Your task to perform on an android device: toggle wifi Image 0: 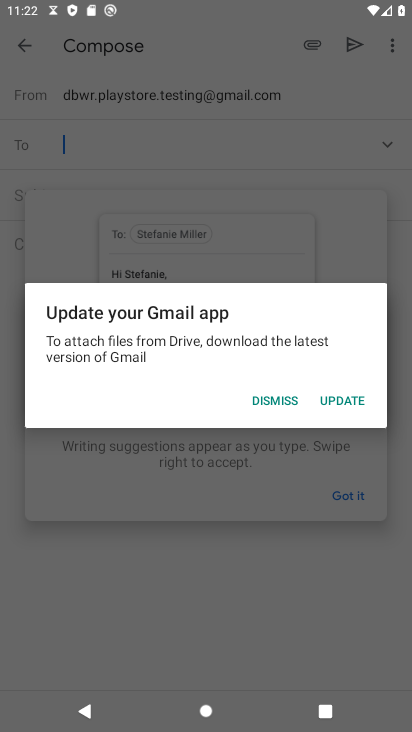
Step 0: click (180, 340)
Your task to perform on an android device: toggle wifi Image 1: 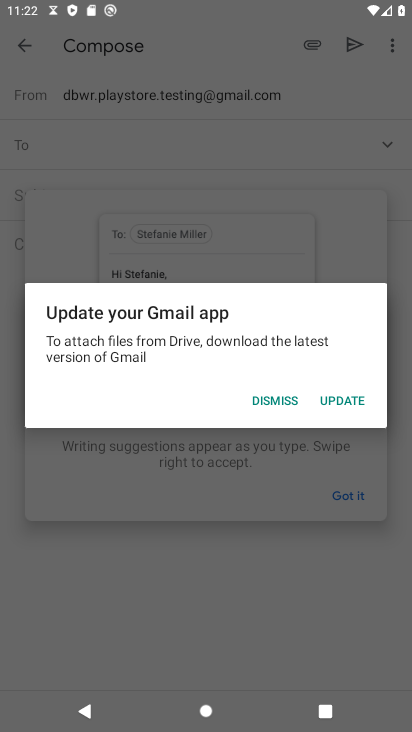
Step 1: press home button
Your task to perform on an android device: toggle wifi Image 2: 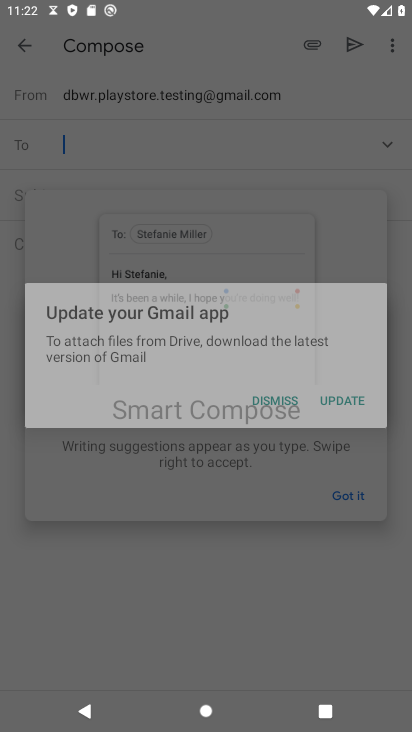
Step 2: press home button
Your task to perform on an android device: toggle wifi Image 3: 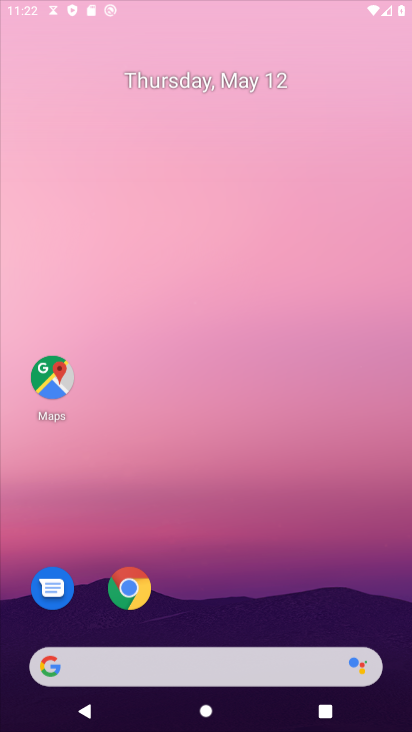
Step 3: press home button
Your task to perform on an android device: toggle wifi Image 4: 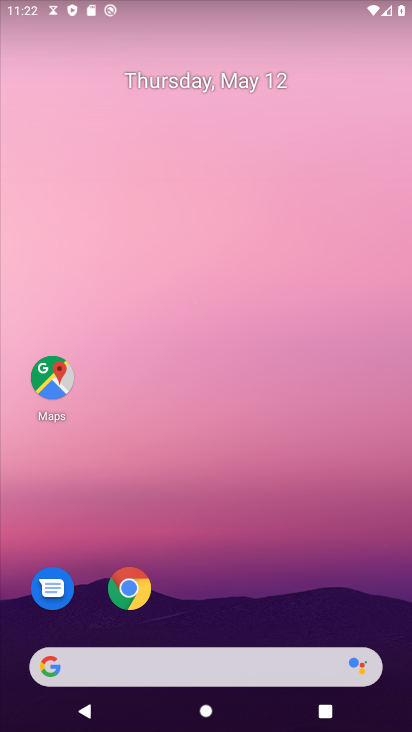
Step 4: drag from (232, 260) to (244, 96)
Your task to perform on an android device: toggle wifi Image 5: 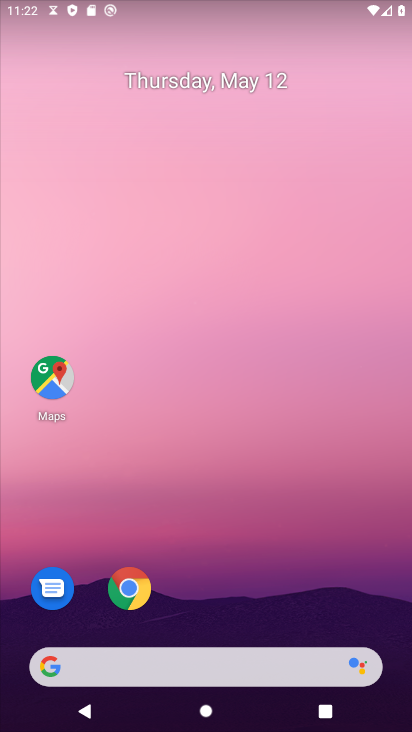
Step 5: drag from (192, 636) to (227, 24)
Your task to perform on an android device: toggle wifi Image 6: 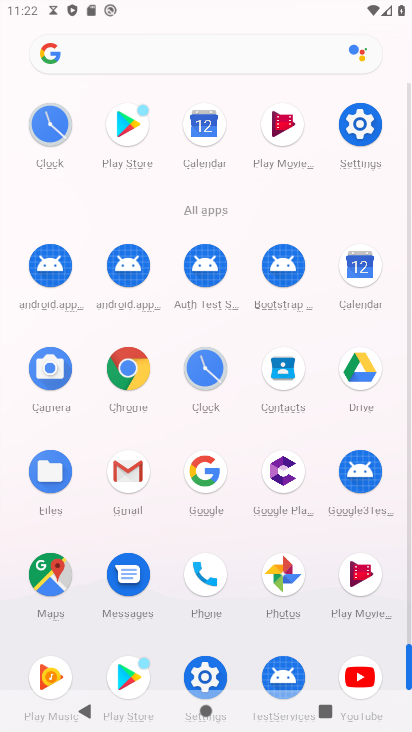
Step 6: click (359, 111)
Your task to perform on an android device: toggle wifi Image 7: 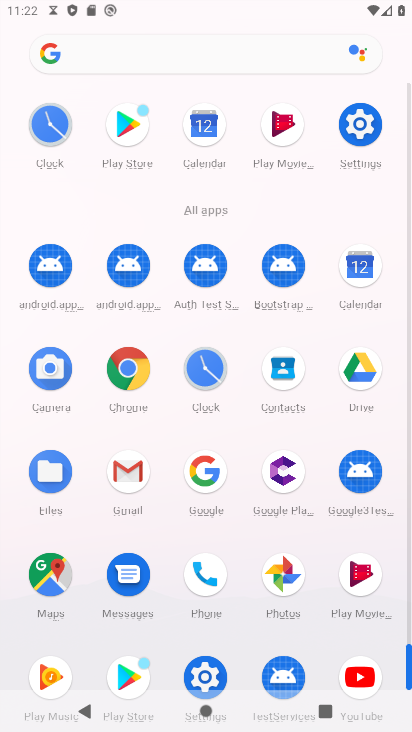
Step 7: click (359, 111)
Your task to perform on an android device: toggle wifi Image 8: 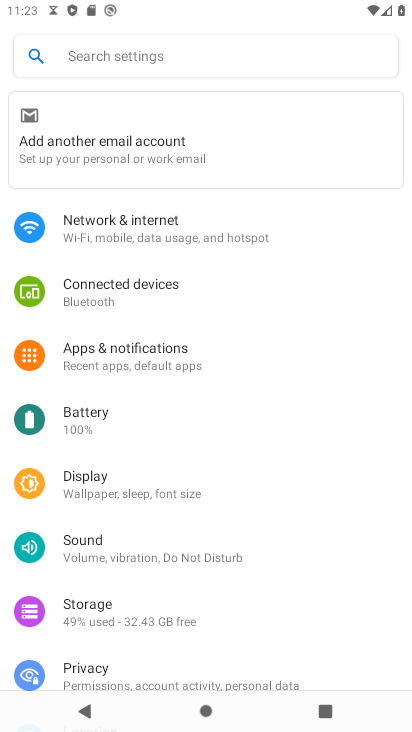
Step 8: click (200, 245)
Your task to perform on an android device: toggle wifi Image 9: 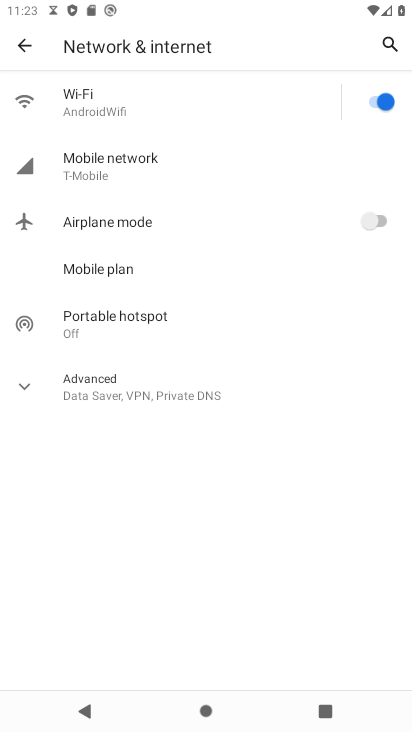
Step 9: click (165, 119)
Your task to perform on an android device: toggle wifi Image 10: 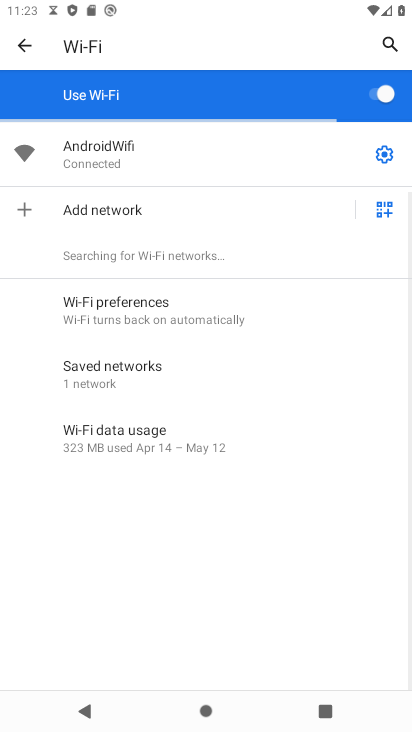
Step 10: drag from (312, 554) to (310, 139)
Your task to perform on an android device: toggle wifi Image 11: 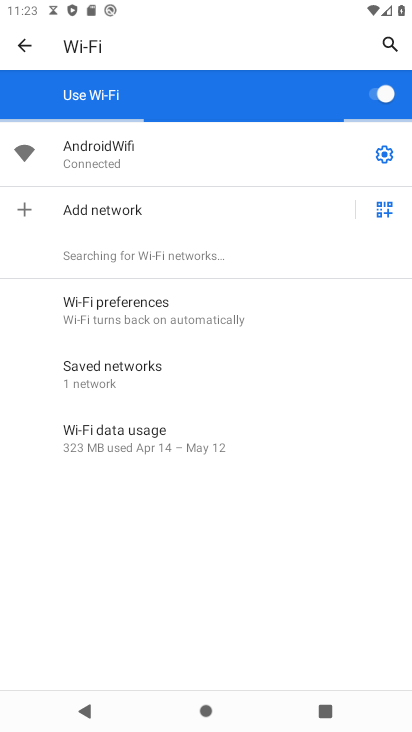
Step 11: click (374, 99)
Your task to perform on an android device: toggle wifi Image 12: 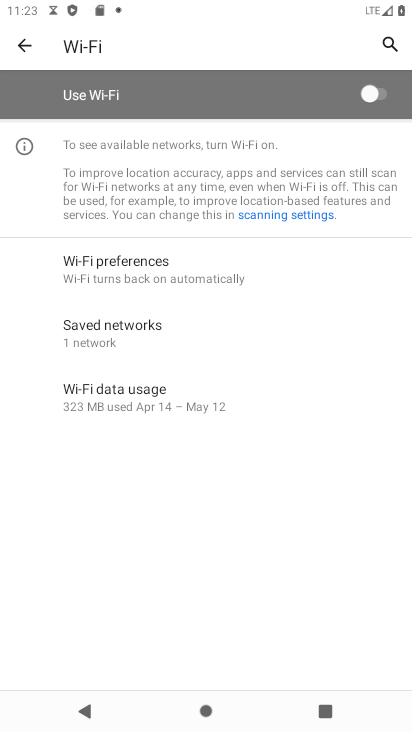
Step 12: task complete